Your task to perform on an android device: What is the news today? Image 0: 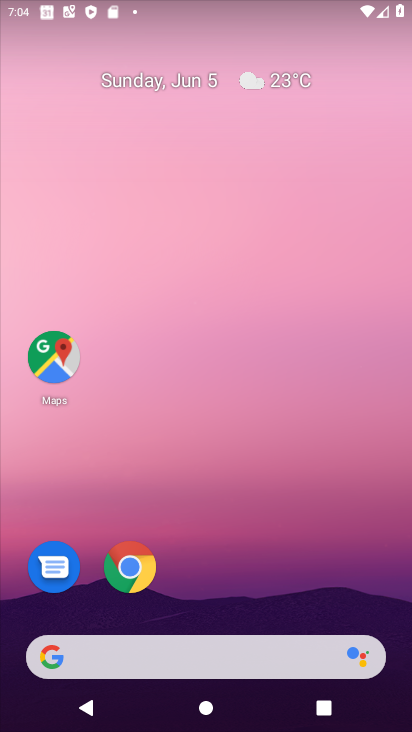
Step 0: drag from (381, 529) to (232, 16)
Your task to perform on an android device: What is the news today? Image 1: 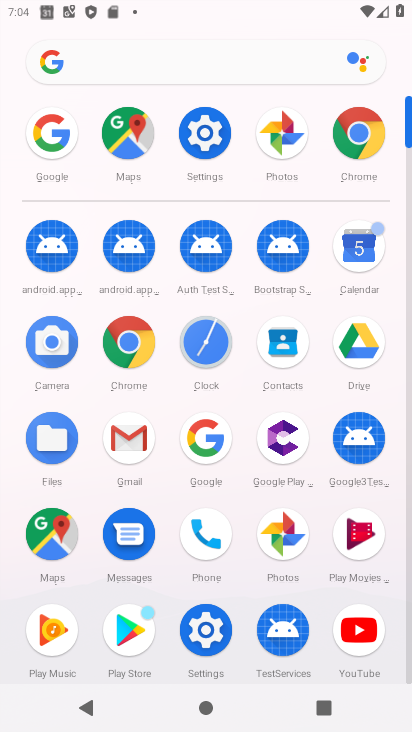
Step 1: click (207, 454)
Your task to perform on an android device: What is the news today? Image 2: 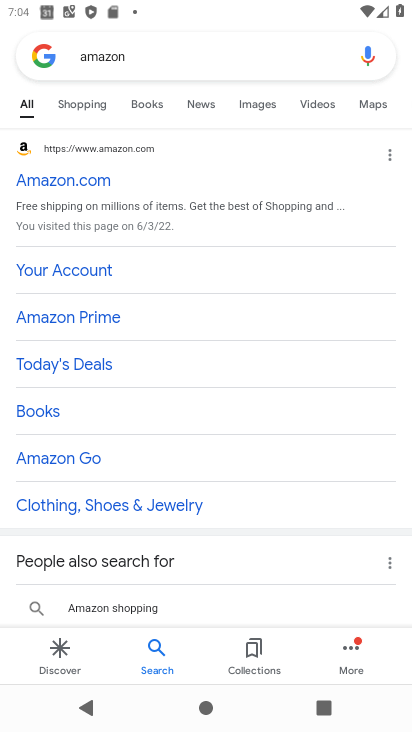
Step 2: press back button
Your task to perform on an android device: What is the news today? Image 3: 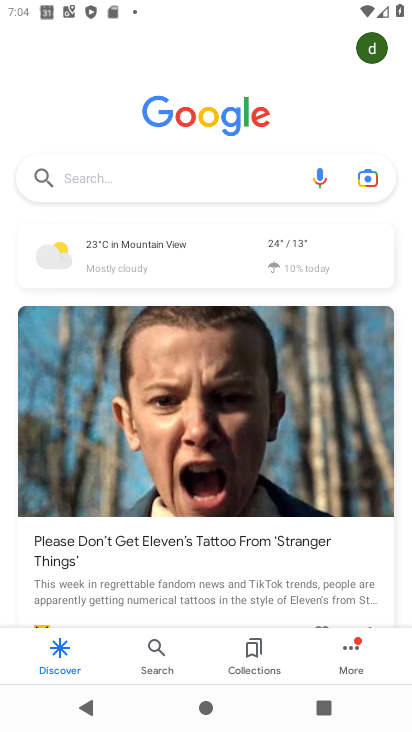
Step 3: click (126, 185)
Your task to perform on an android device: What is the news today? Image 4: 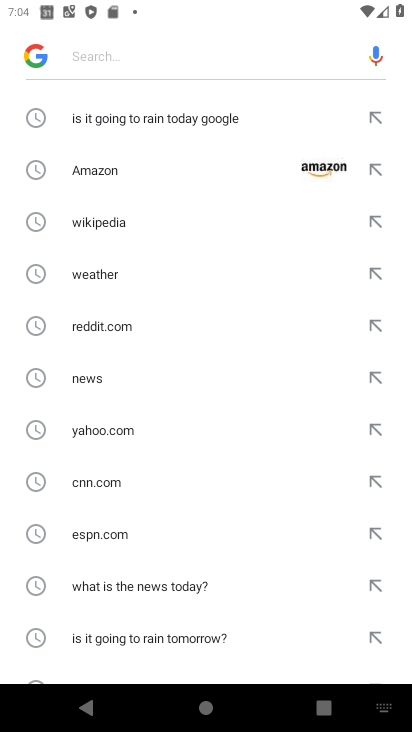
Step 4: click (166, 587)
Your task to perform on an android device: What is the news today? Image 5: 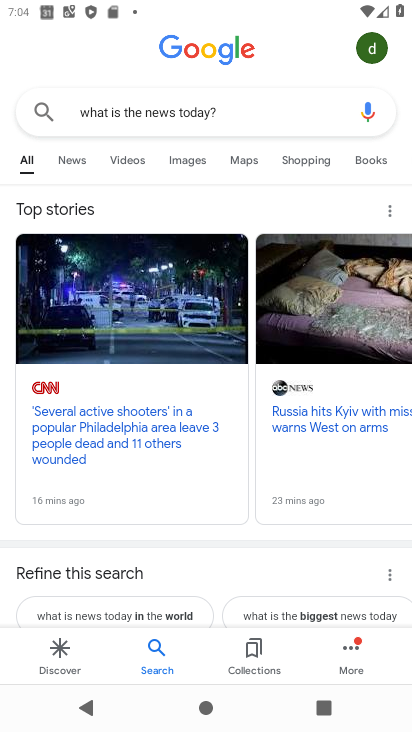
Step 5: task complete